Your task to perform on an android device: turn on wifi Image 0: 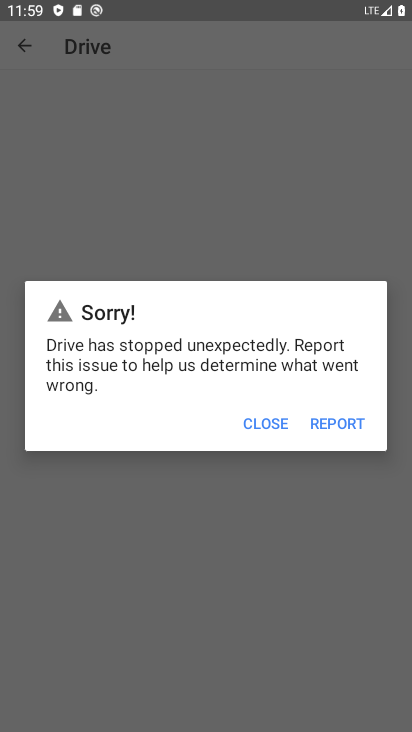
Step 0: press home button
Your task to perform on an android device: turn on wifi Image 1: 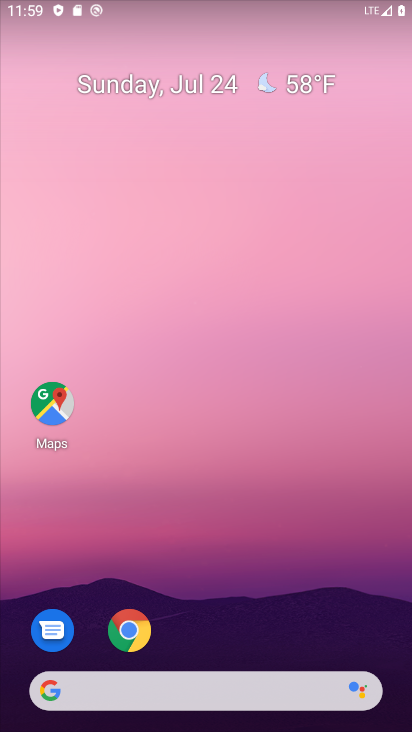
Step 1: drag from (247, 641) to (164, 4)
Your task to perform on an android device: turn on wifi Image 2: 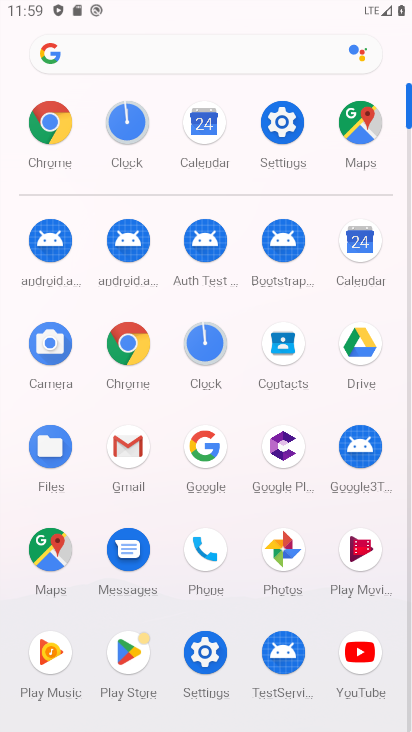
Step 2: click (281, 123)
Your task to perform on an android device: turn on wifi Image 3: 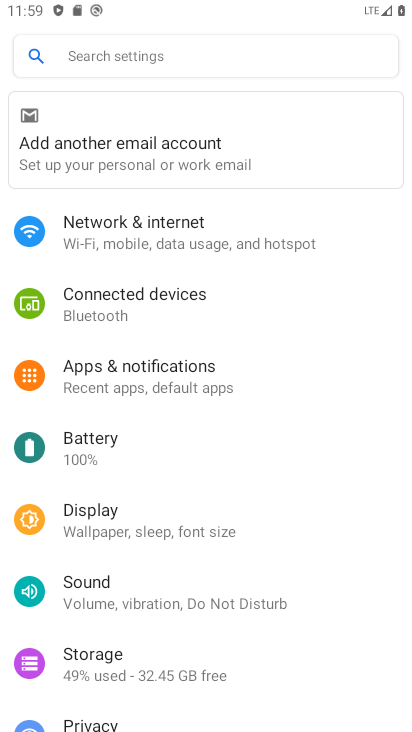
Step 3: click (258, 243)
Your task to perform on an android device: turn on wifi Image 4: 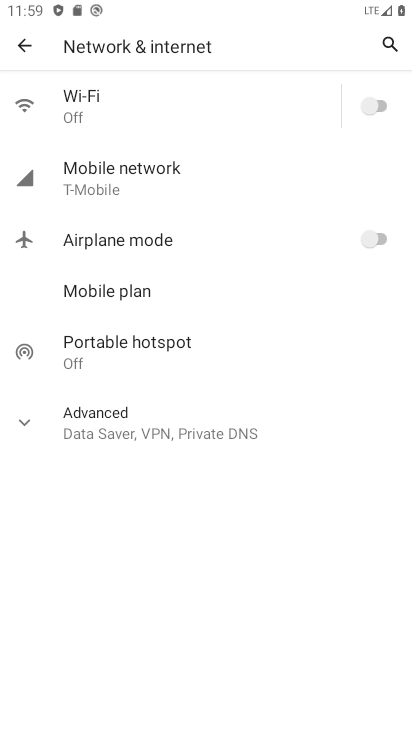
Step 4: click (361, 125)
Your task to perform on an android device: turn on wifi Image 5: 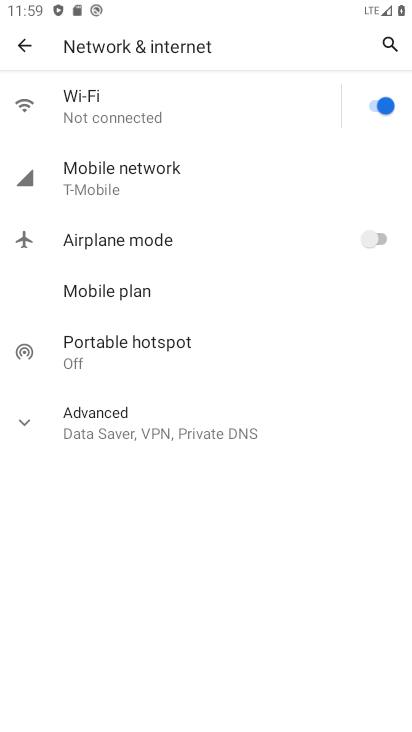
Step 5: task complete